Your task to perform on an android device: change the clock display to show seconds Image 0: 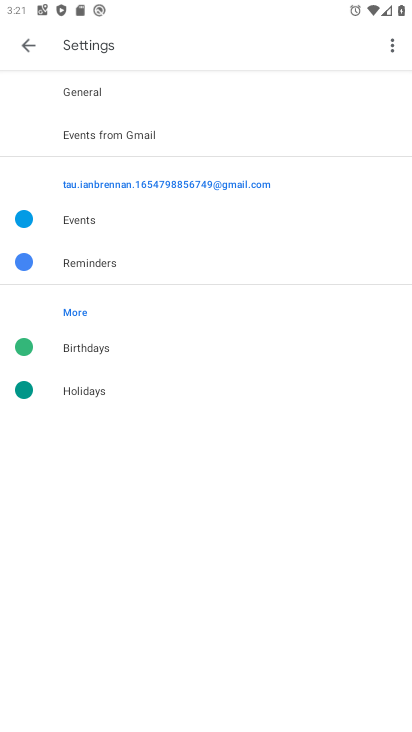
Step 0: press home button
Your task to perform on an android device: change the clock display to show seconds Image 1: 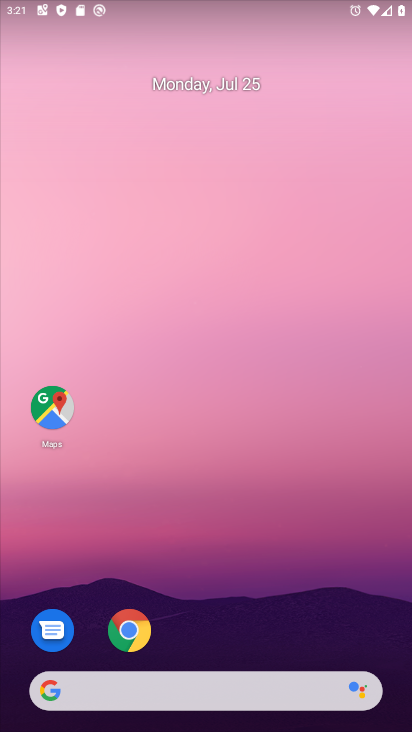
Step 1: drag from (219, 685) to (230, 208)
Your task to perform on an android device: change the clock display to show seconds Image 2: 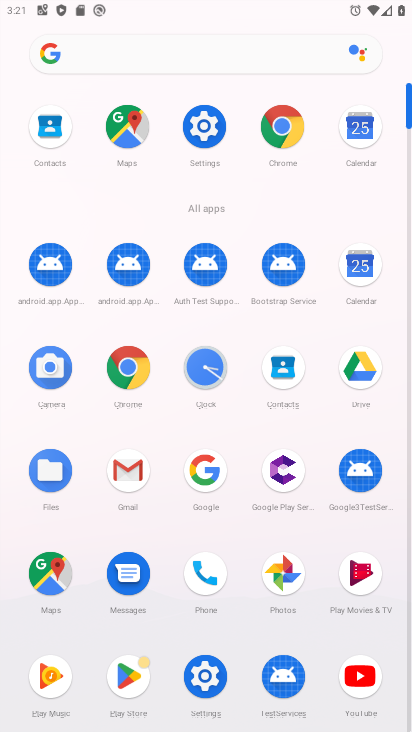
Step 2: click (197, 384)
Your task to perform on an android device: change the clock display to show seconds Image 3: 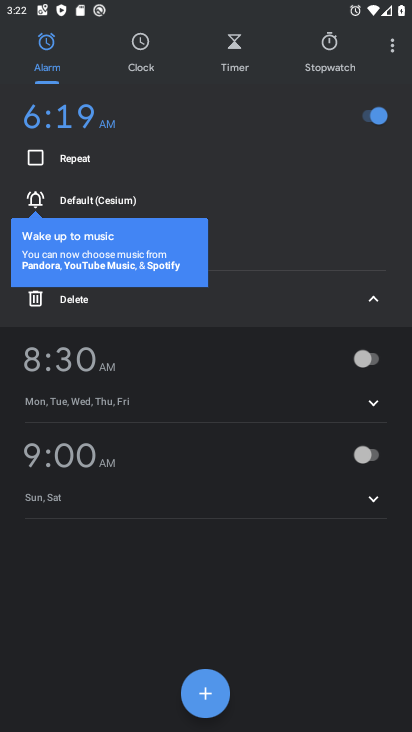
Step 3: click (391, 32)
Your task to perform on an android device: change the clock display to show seconds Image 4: 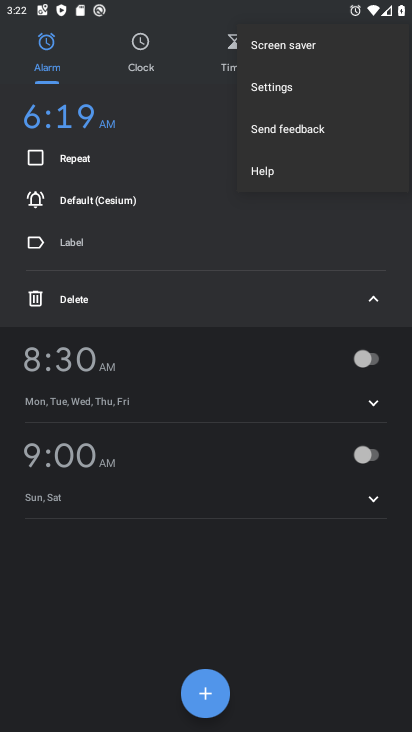
Step 4: click (305, 81)
Your task to perform on an android device: change the clock display to show seconds Image 5: 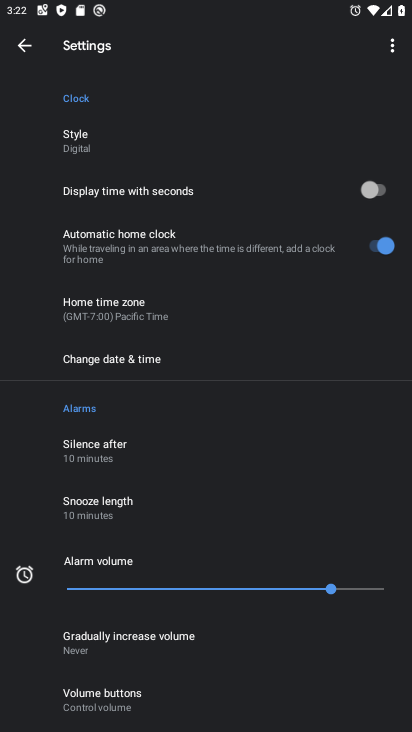
Step 5: click (372, 187)
Your task to perform on an android device: change the clock display to show seconds Image 6: 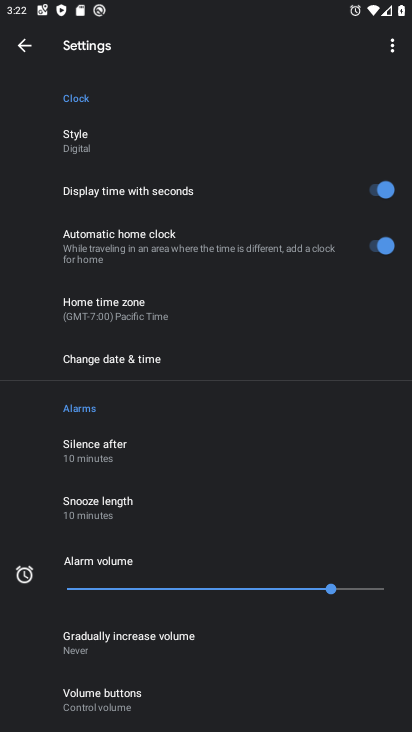
Step 6: task complete